Your task to perform on an android device: move an email to a new category in the gmail app Image 0: 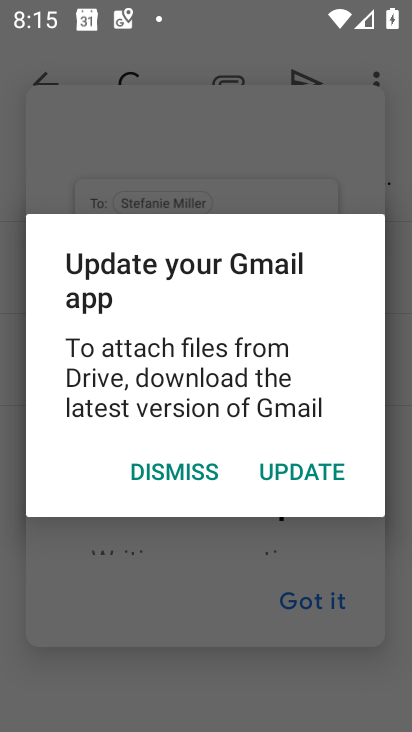
Step 0: press home button
Your task to perform on an android device: move an email to a new category in the gmail app Image 1: 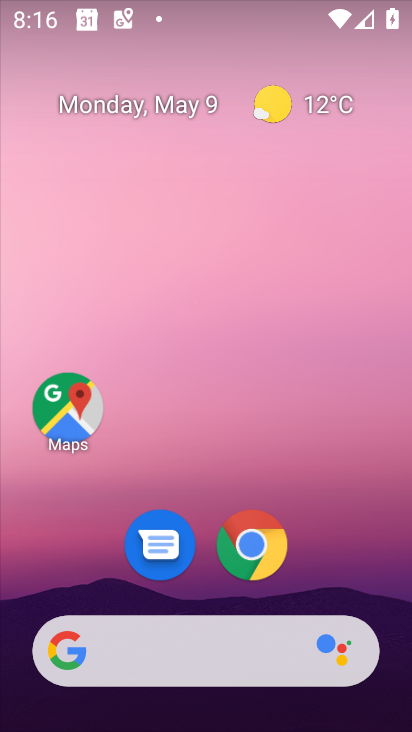
Step 1: drag from (200, 720) to (203, 212)
Your task to perform on an android device: move an email to a new category in the gmail app Image 2: 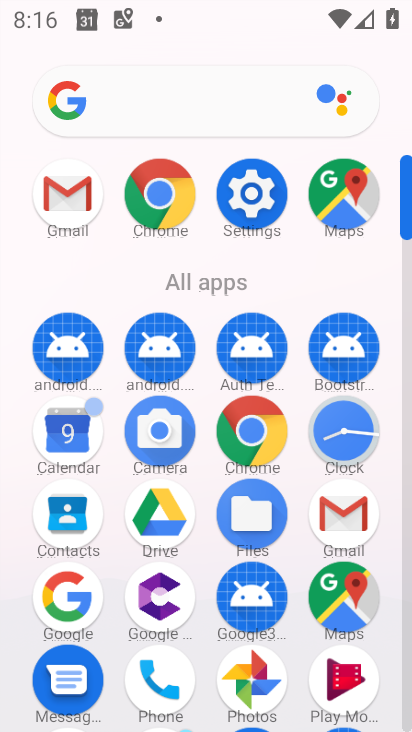
Step 2: click (345, 509)
Your task to perform on an android device: move an email to a new category in the gmail app Image 3: 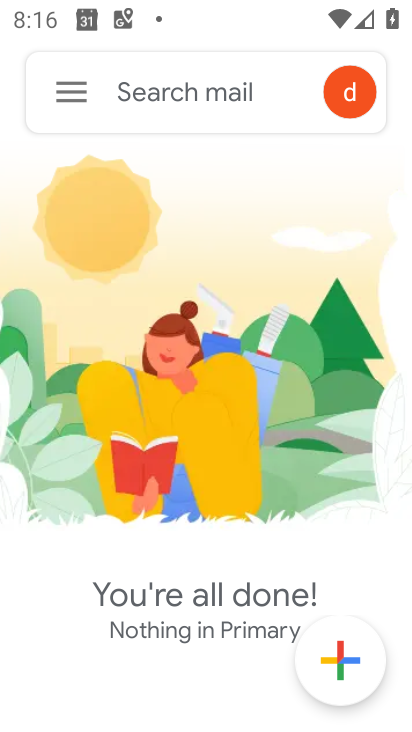
Step 3: task complete